Your task to perform on an android device: turn on notifications settings in the gmail app Image 0: 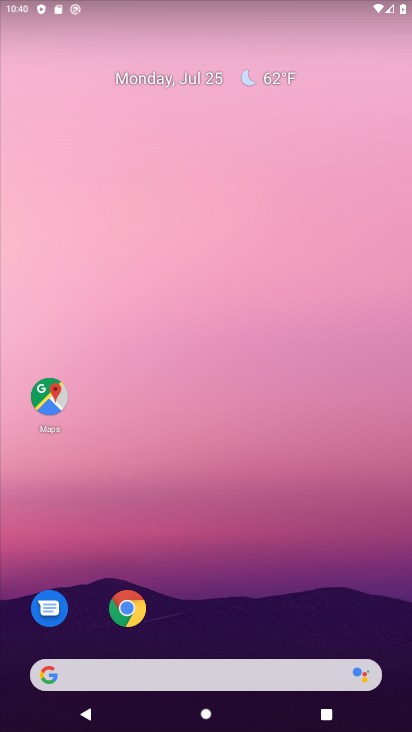
Step 0: drag from (223, 649) to (241, 60)
Your task to perform on an android device: turn on notifications settings in the gmail app Image 1: 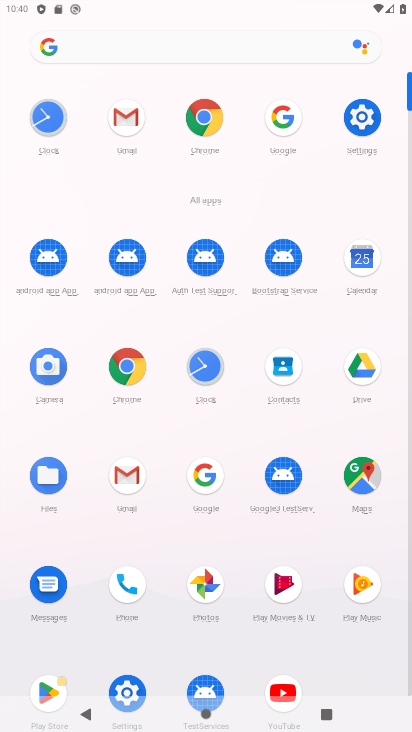
Step 1: click (132, 480)
Your task to perform on an android device: turn on notifications settings in the gmail app Image 2: 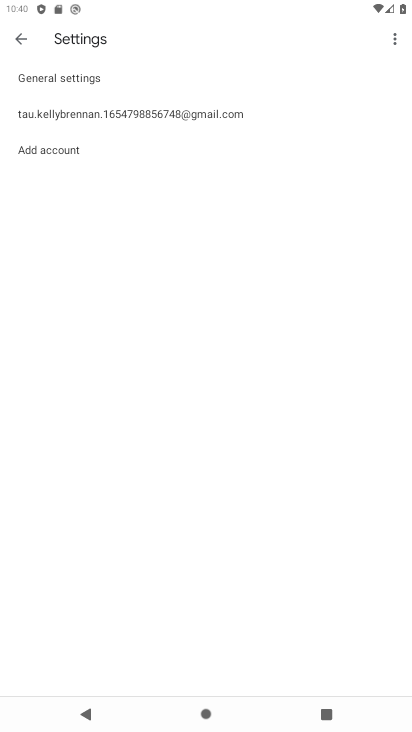
Step 2: click (49, 111)
Your task to perform on an android device: turn on notifications settings in the gmail app Image 3: 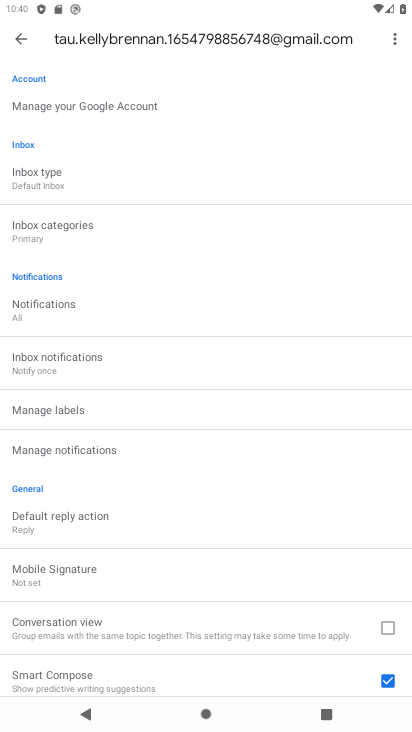
Step 3: click (52, 449)
Your task to perform on an android device: turn on notifications settings in the gmail app Image 4: 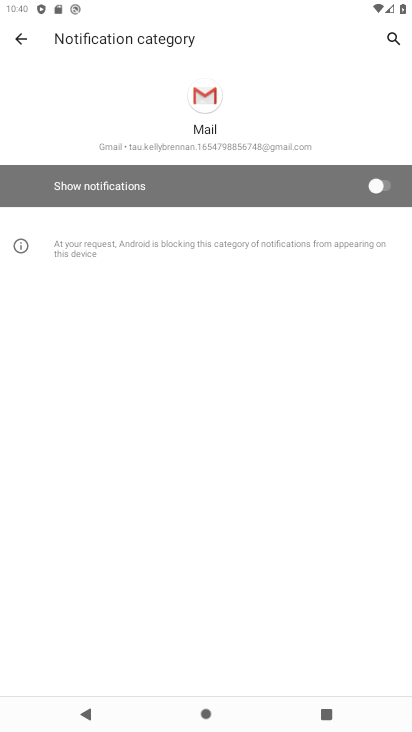
Step 4: click (386, 185)
Your task to perform on an android device: turn on notifications settings in the gmail app Image 5: 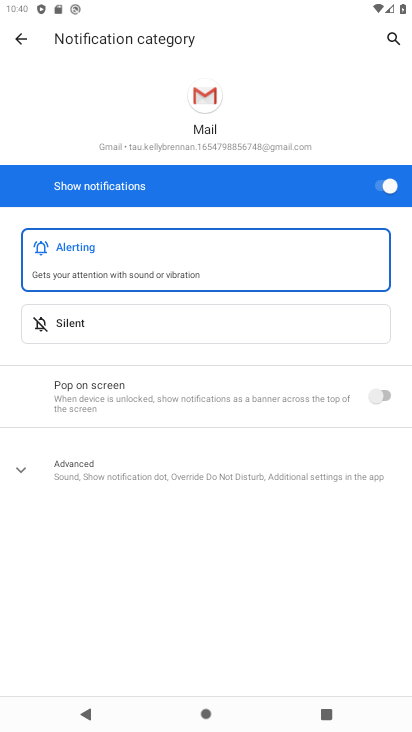
Step 5: task complete